Your task to perform on an android device: Open wifi settings Image 0: 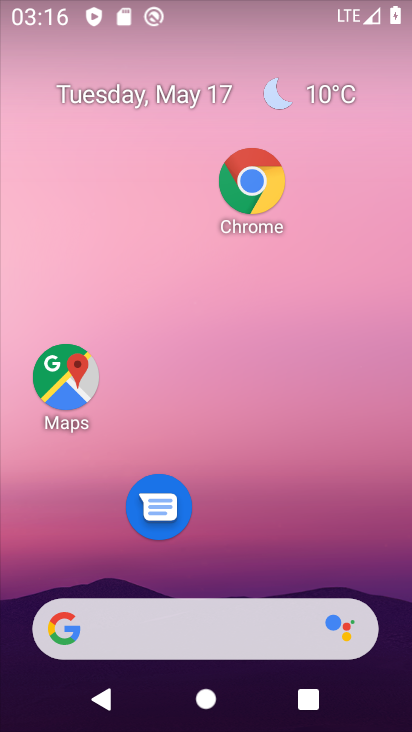
Step 0: drag from (188, 11) to (243, 583)
Your task to perform on an android device: Open wifi settings Image 1: 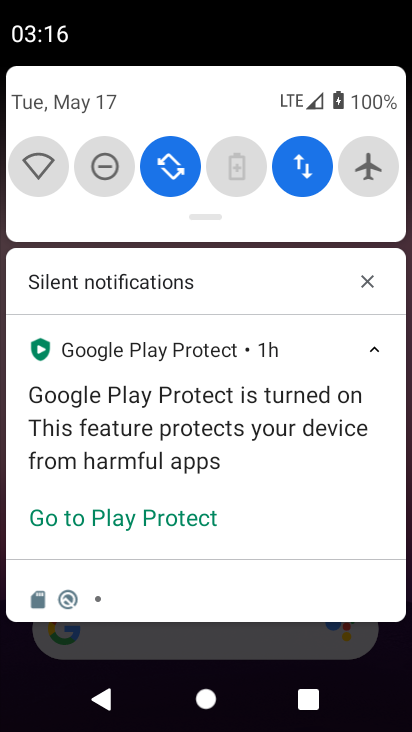
Step 1: click (60, 172)
Your task to perform on an android device: Open wifi settings Image 2: 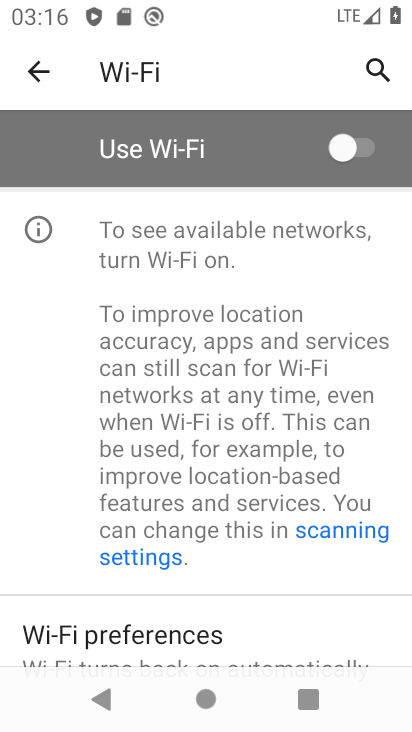
Step 2: task complete